Your task to perform on an android device: Show me productivity apps on the Play Store Image 0: 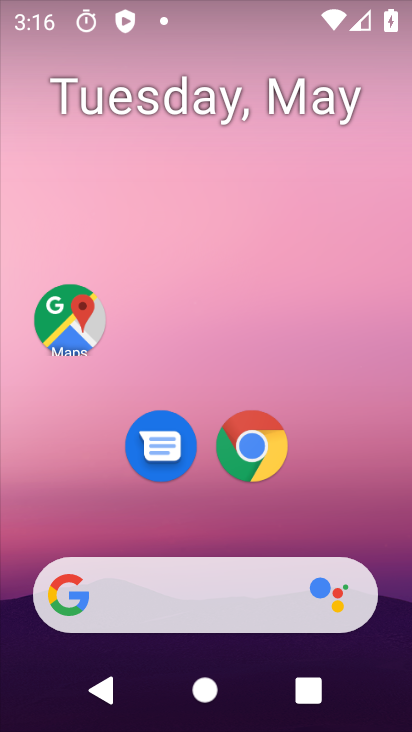
Step 0: drag from (219, 700) to (229, 204)
Your task to perform on an android device: Show me productivity apps on the Play Store Image 1: 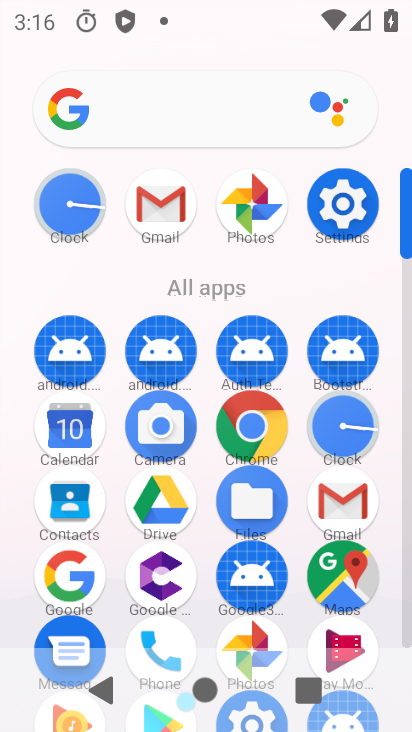
Step 1: drag from (297, 607) to (293, 484)
Your task to perform on an android device: Show me productivity apps on the Play Store Image 2: 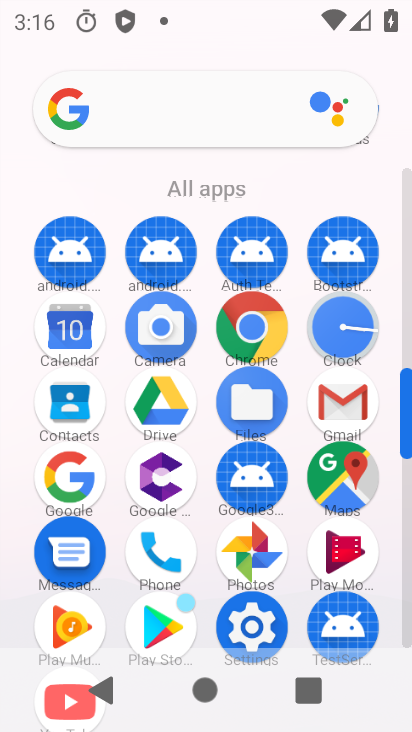
Step 2: click (162, 624)
Your task to perform on an android device: Show me productivity apps on the Play Store Image 3: 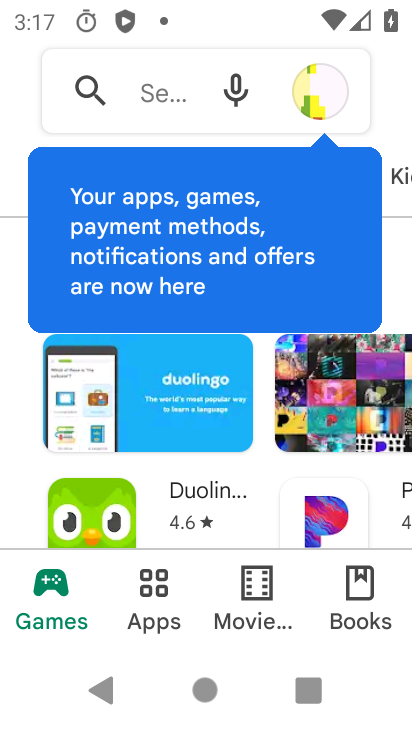
Step 3: click (157, 585)
Your task to perform on an android device: Show me productivity apps on the Play Store Image 4: 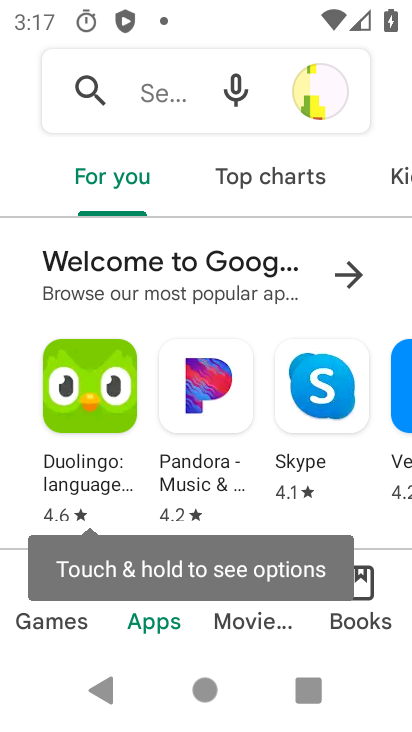
Step 4: drag from (355, 185) to (193, 188)
Your task to perform on an android device: Show me productivity apps on the Play Store Image 5: 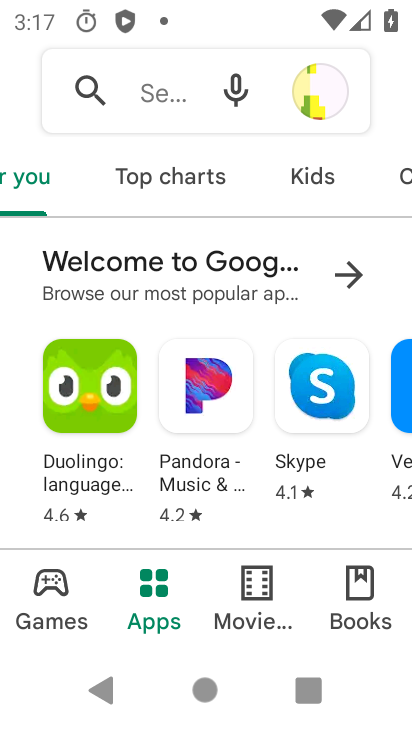
Step 5: drag from (373, 172) to (148, 176)
Your task to perform on an android device: Show me productivity apps on the Play Store Image 6: 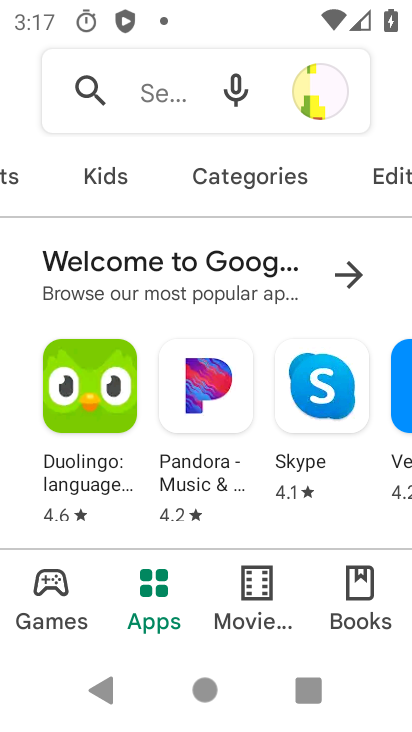
Step 6: click (220, 175)
Your task to perform on an android device: Show me productivity apps on the Play Store Image 7: 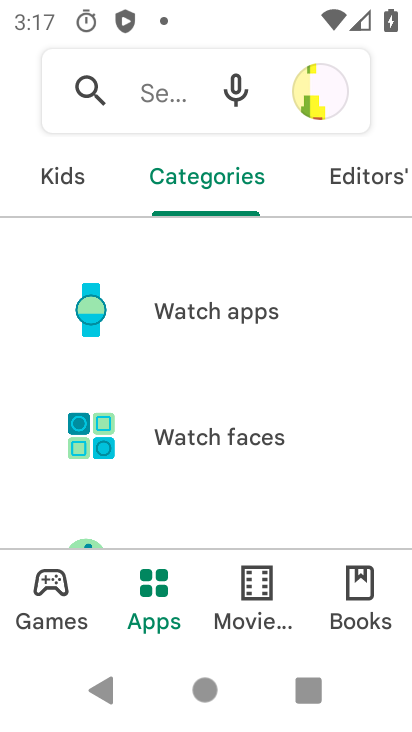
Step 7: drag from (221, 502) to (230, 302)
Your task to perform on an android device: Show me productivity apps on the Play Store Image 8: 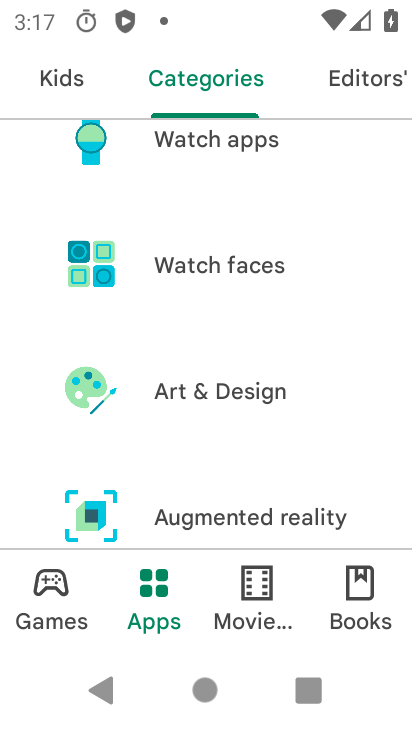
Step 8: drag from (202, 529) to (208, 318)
Your task to perform on an android device: Show me productivity apps on the Play Store Image 9: 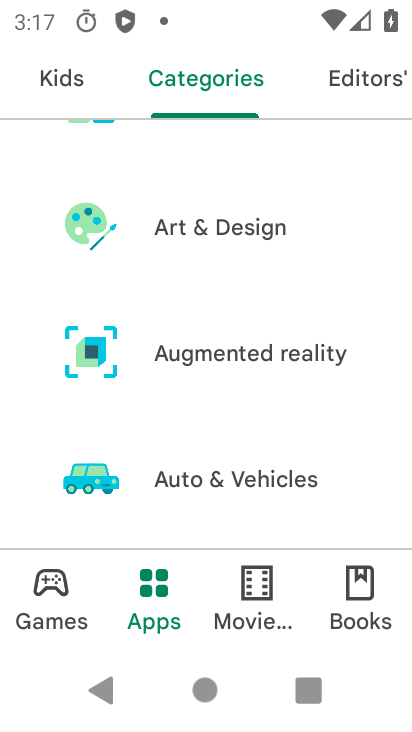
Step 9: drag from (234, 533) to (281, 168)
Your task to perform on an android device: Show me productivity apps on the Play Store Image 10: 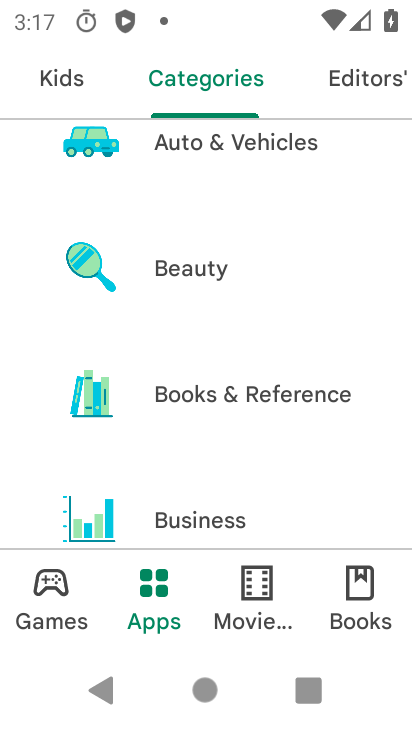
Step 10: drag from (209, 476) to (249, 126)
Your task to perform on an android device: Show me productivity apps on the Play Store Image 11: 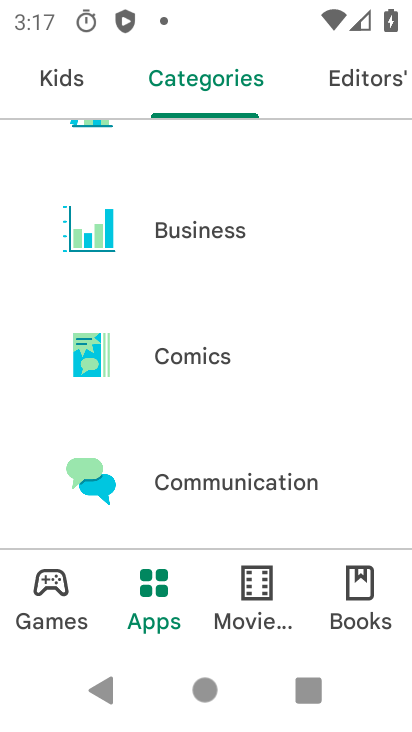
Step 11: drag from (216, 519) to (219, 168)
Your task to perform on an android device: Show me productivity apps on the Play Store Image 12: 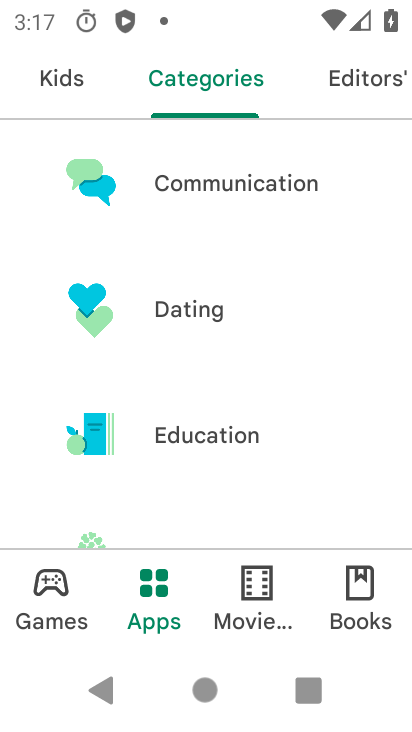
Step 12: drag from (202, 528) to (236, 178)
Your task to perform on an android device: Show me productivity apps on the Play Store Image 13: 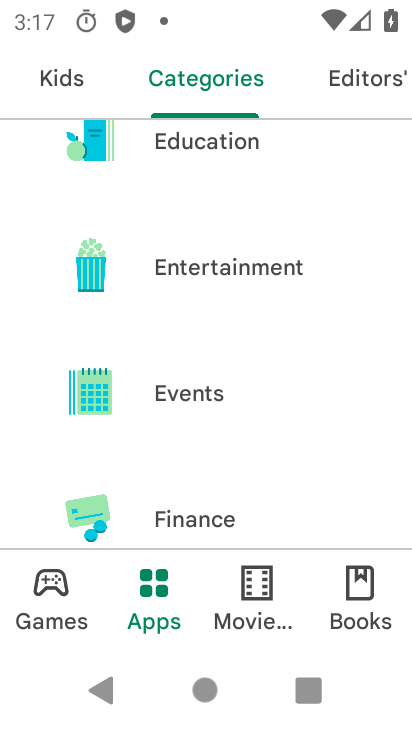
Step 13: drag from (208, 499) to (213, 130)
Your task to perform on an android device: Show me productivity apps on the Play Store Image 14: 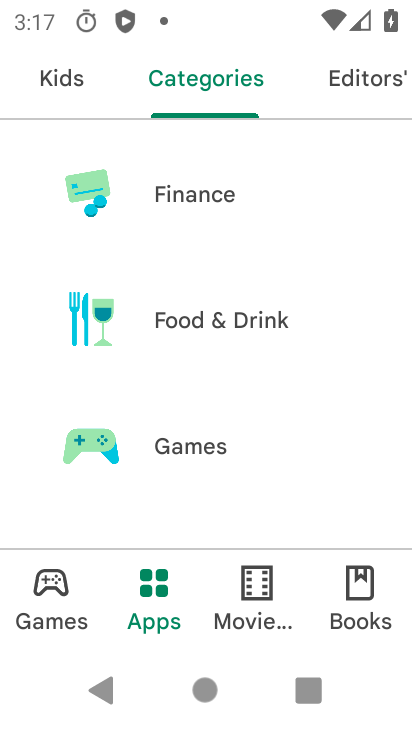
Step 14: drag from (198, 505) to (208, 179)
Your task to perform on an android device: Show me productivity apps on the Play Store Image 15: 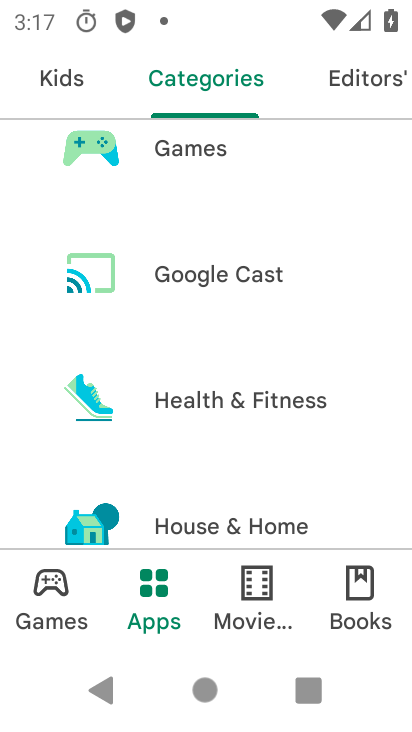
Step 15: drag from (203, 509) to (233, 189)
Your task to perform on an android device: Show me productivity apps on the Play Store Image 16: 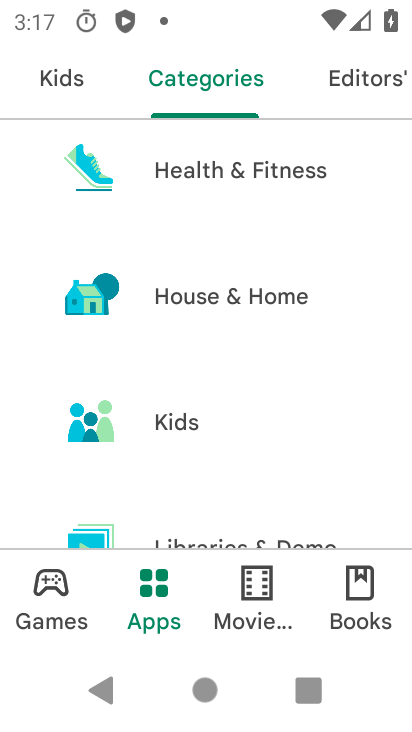
Step 16: drag from (212, 510) to (245, 220)
Your task to perform on an android device: Show me productivity apps on the Play Store Image 17: 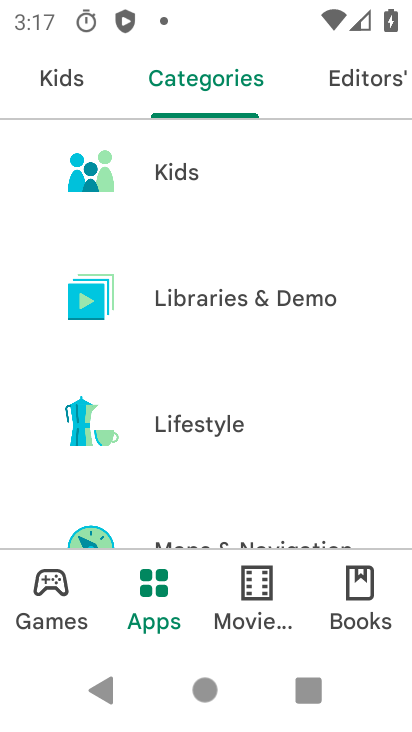
Step 17: drag from (206, 497) to (254, 197)
Your task to perform on an android device: Show me productivity apps on the Play Store Image 18: 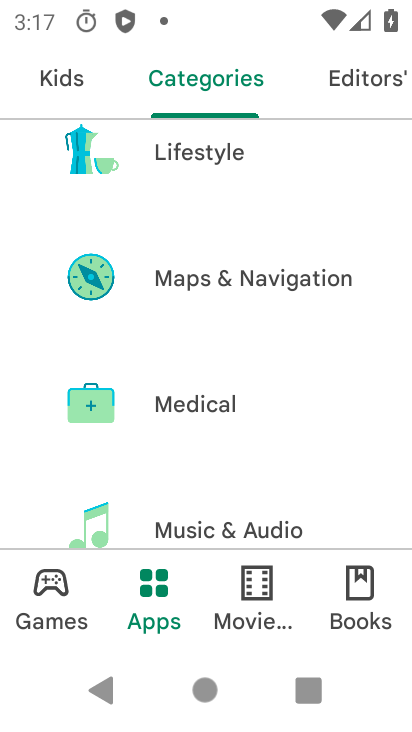
Step 18: drag from (207, 500) to (250, 193)
Your task to perform on an android device: Show me productivity apps on the Play Store Image 19: 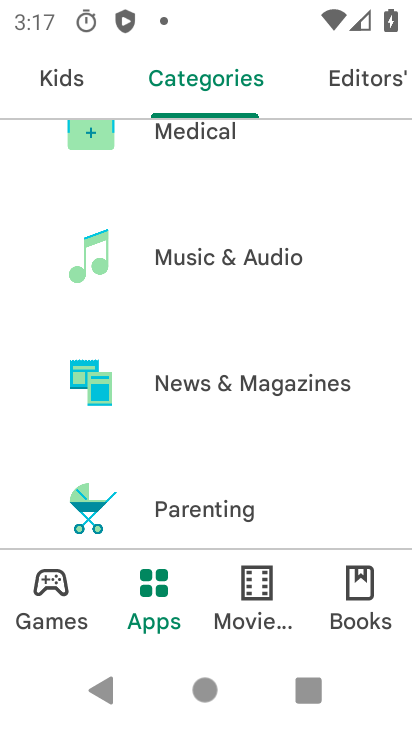
Step 19: drag from (222, 507) to (260, 154)
Your task to perform on an android device: Show me productivity apps on the Play Store Image 20: 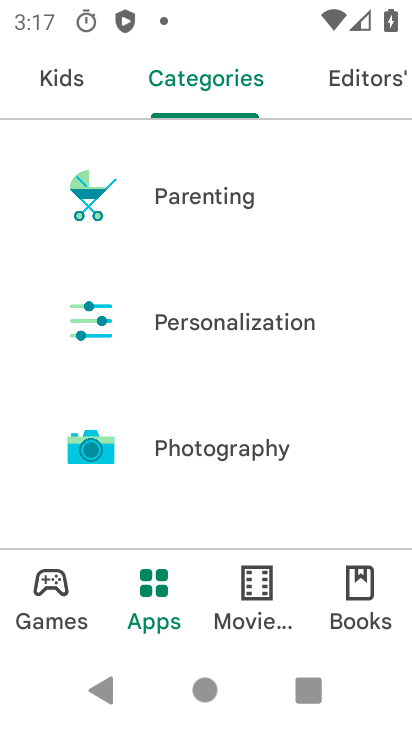
Step 20: drag from (196, 493) to (234, 224)
Your task to perform on an android device: Show me productivity apps on the Play Store Image 21: 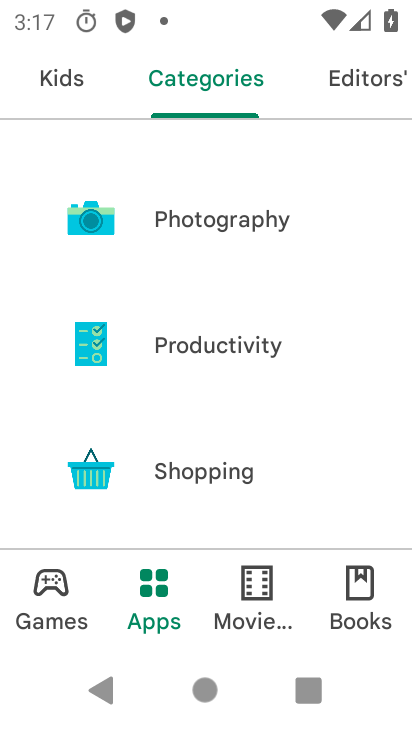
Step 21: click (223, 336)
Your task to perform on an android device: Show me productivity apps on the Play Store Image 22: 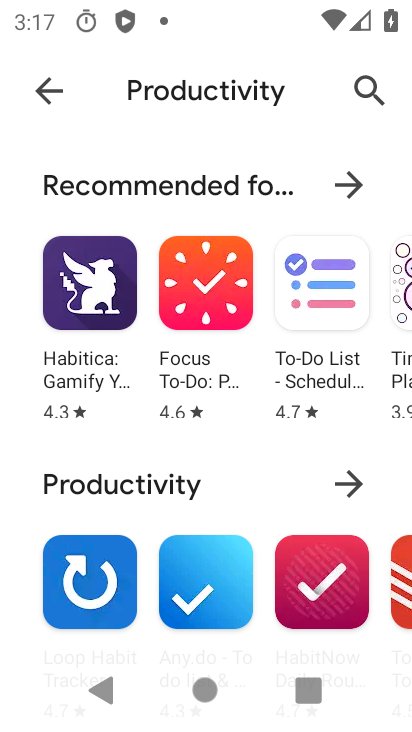
Step 22: task complete